Your task to perform on an android device: Open Google Chrome and click the shortcut for Amazon.com Image 0: 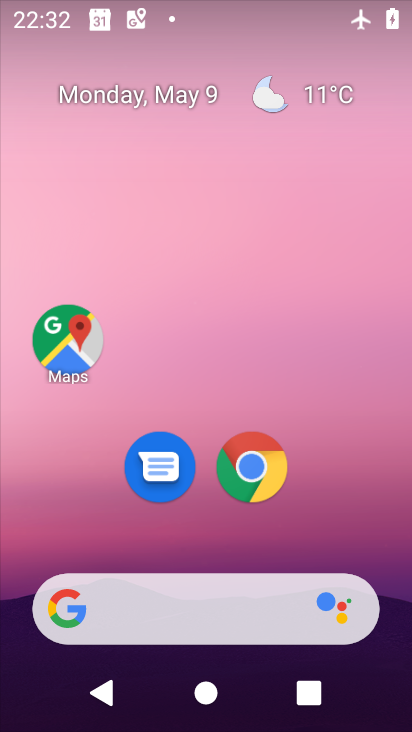
Step 0: drag from (350, 423) to (331, 251)
Your task to perform on an android device: Open Google Chrome and click the shortcut for Amazon.com Image 1: 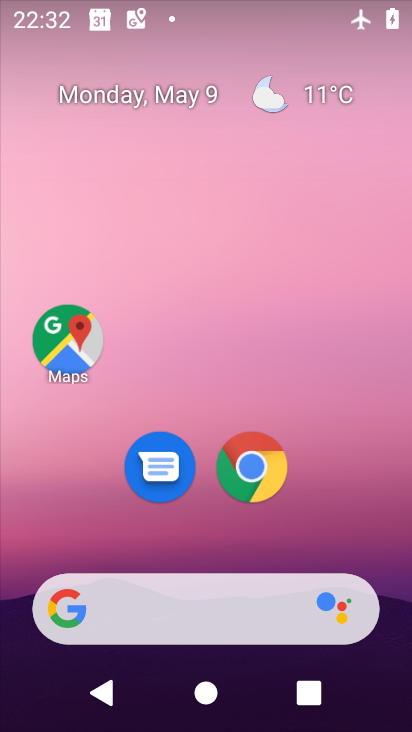
Step 1: drag from (314, 524) to (324, 179)
Your task to perform on an android device: Open Google Chrome and click the shortcut for Amazon.com Image 2: 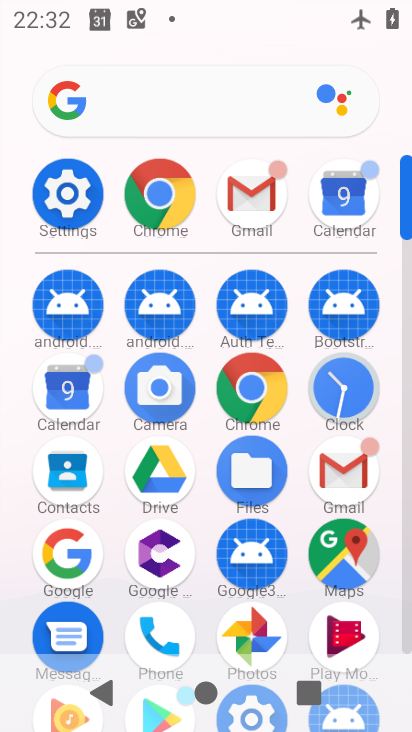
Step 2: click (157, 166)
Your task to perform on an android device: Open Google Chrome and click the shortcut for Amazon.com Image 3: 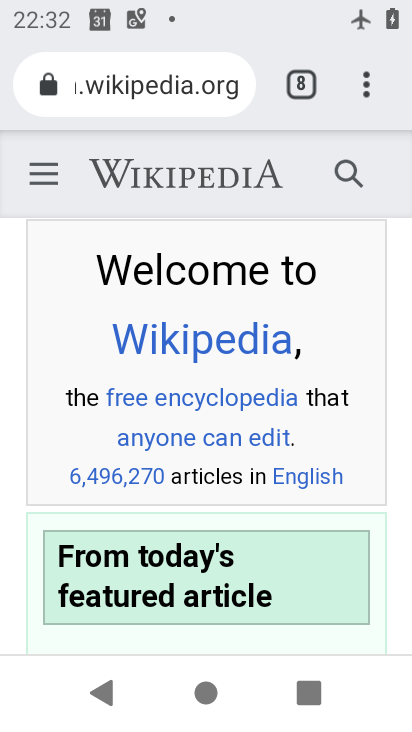
Step 3: click (353, 83)
Your task to perform on an android device: Open Google Chrome and click the shortcut for Amazon.com Image 4: 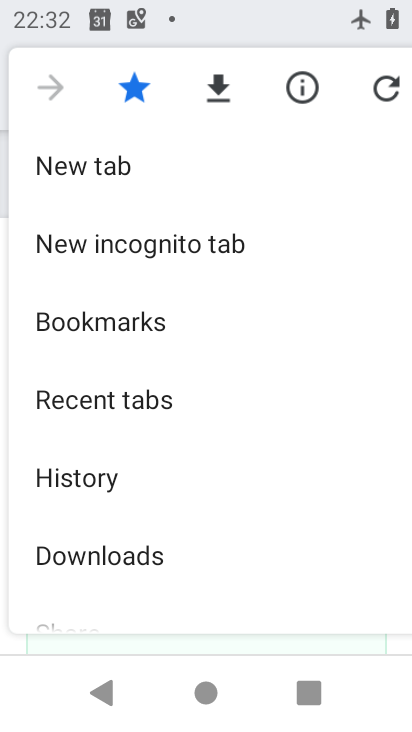
Step 4: click (96, 165)
Your task to perform on an android device: Open Google Chrome and click the shortcut for Amazon.com Image 5: 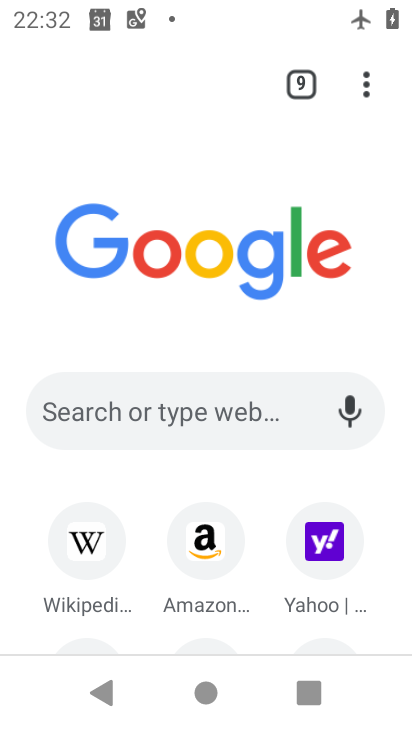
Step 5: click (213, 566)
Your task to perform on an android device: Open Google Chrome and click the shortcut for Amazon.com Image 6: 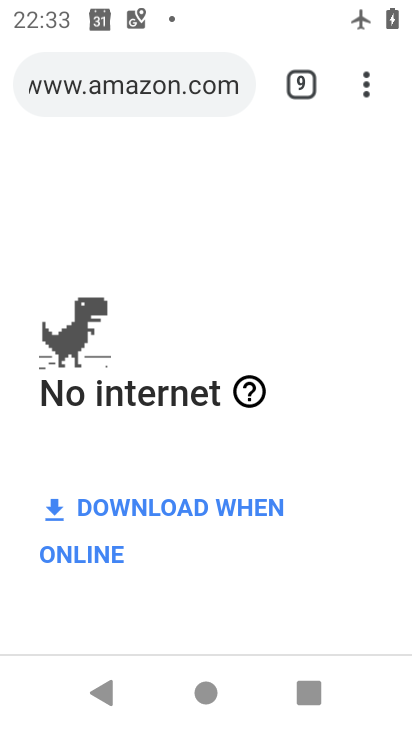
Step 6: task complete